Your task to perform on an android device: Open notification settings Image 0: 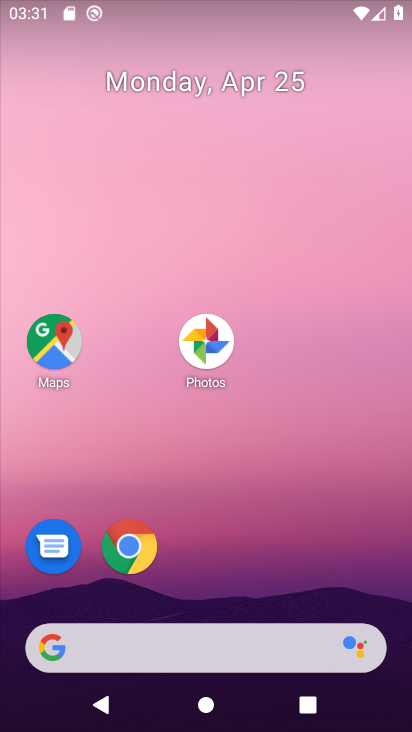
Step 0: drag from (295, 441) to (304, 288)
Your task to perform on an android device: Open notification settings Image 1: 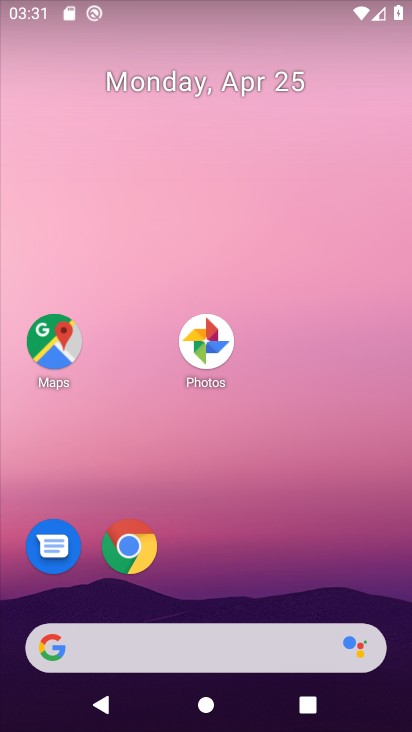
Step 1: drag from (302, 493) to (318, 175)
Your task to perform on an android device: Open notification settings Image 2: 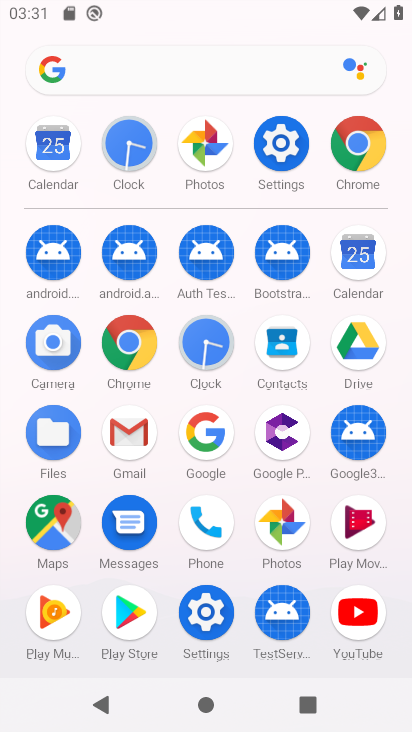
Step 2: click (294, 142)
Your task to perform on an android device: Open notification settings Image 3: 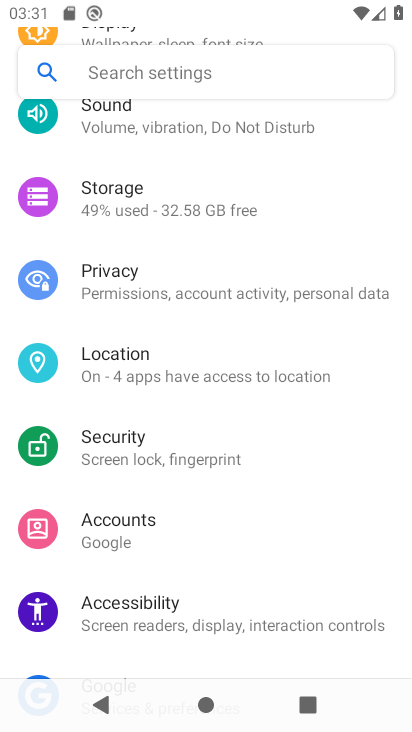
Step 3: drag from (173, 158) to (170, 613)
Your task to perform on an android device: Open notification settings Image 4: 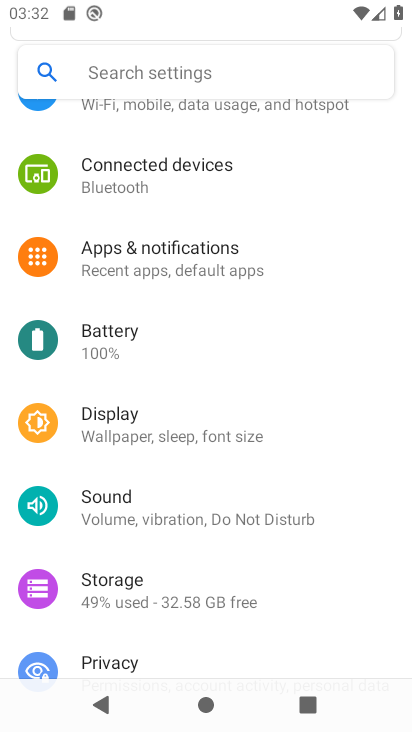
Step 4: drag from (180, 164) to (187, 620)
Your task to perform on an android device: Open notification settings Image 5: 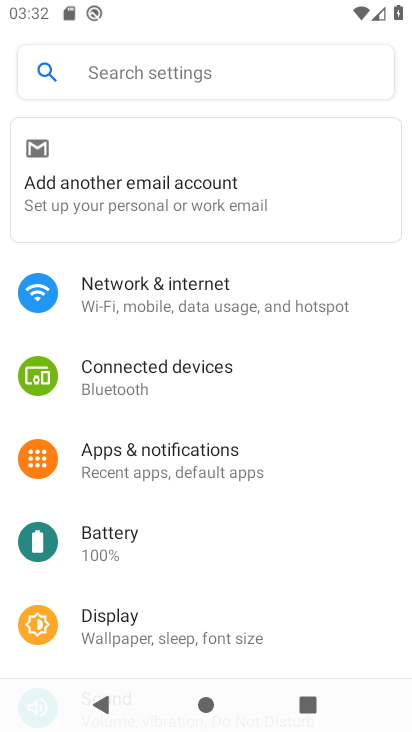
Step 5: click (194, 462)
Your task to perform on an android device: Open notification settings Image 6: 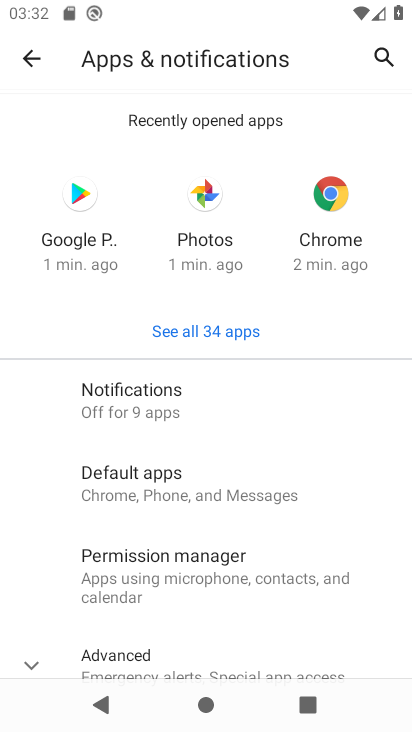
Step 6: click (191, 403)
Your task to perform on an android device: Open notification settings Image 7: 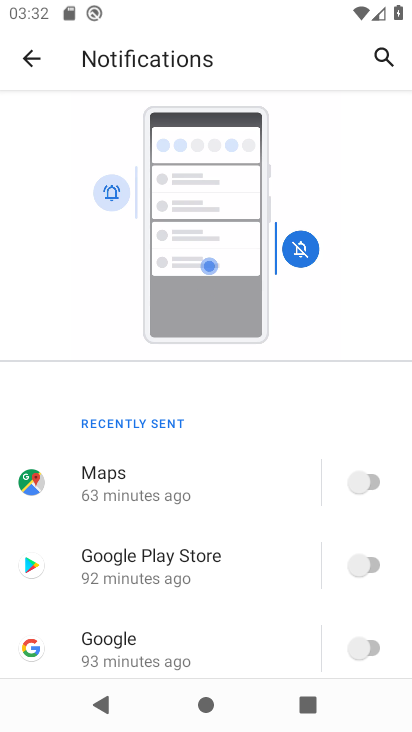
Step 7: task complete